Your task to perform on an android device: change the clock display to show seconds Image 0: 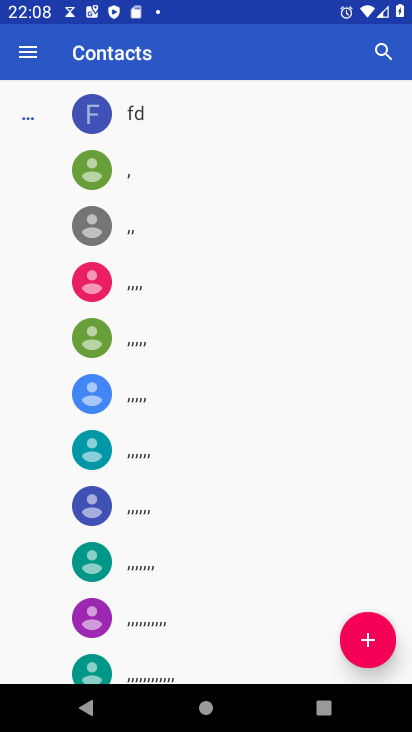
Step 0: press home button
Your task to perform on an android device: change the clock display to show seconds Image 1: 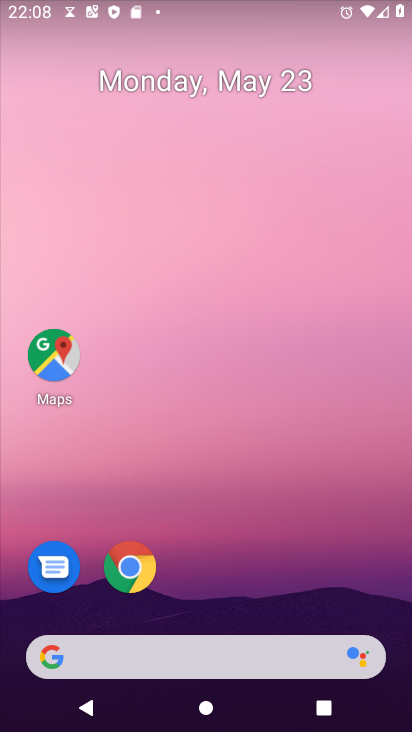
Step 1: drag from (257, 588) to (259, 97)
Your task to perform on an android device: change the clock display to show seconds Image 2: 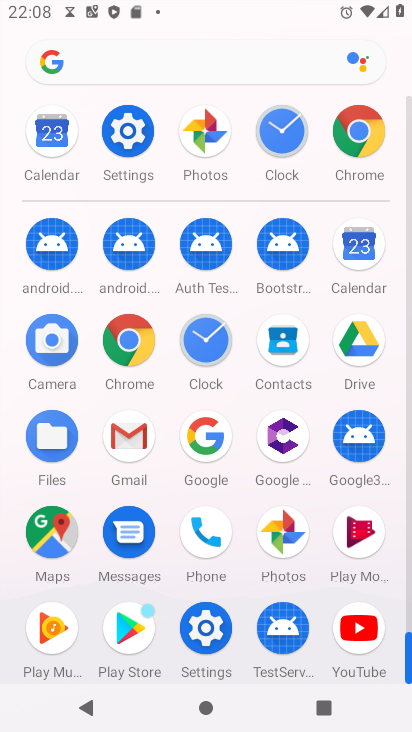
Step 2: click (199, 317)
Your task to perform on an android device: change the clock display to show seconds Image 3: 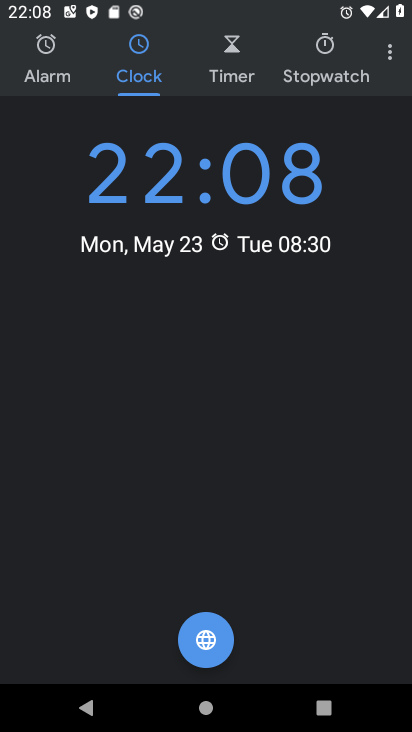
Step 3: click (391, 55)
Your task to perform on an android device: change the clock display to show seconds Image 4: 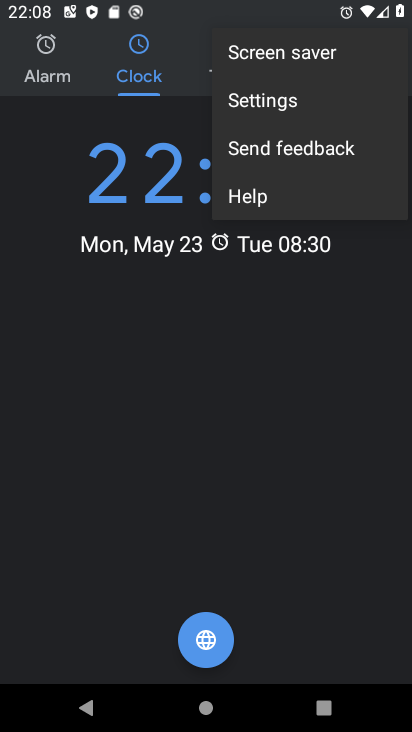
Step 4: click (279, 107)
Your task to perform on an android device: change the clock display to show seconds Image 5: 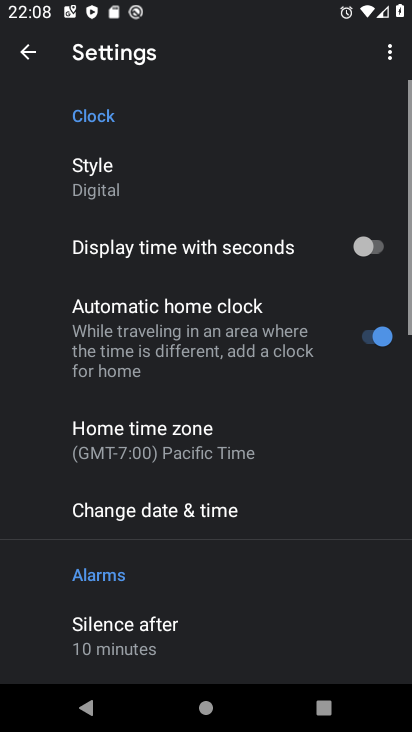
Step 5: click (120, 179)
Your task to perform on an android device: change the clock display to show seconds Image 6: 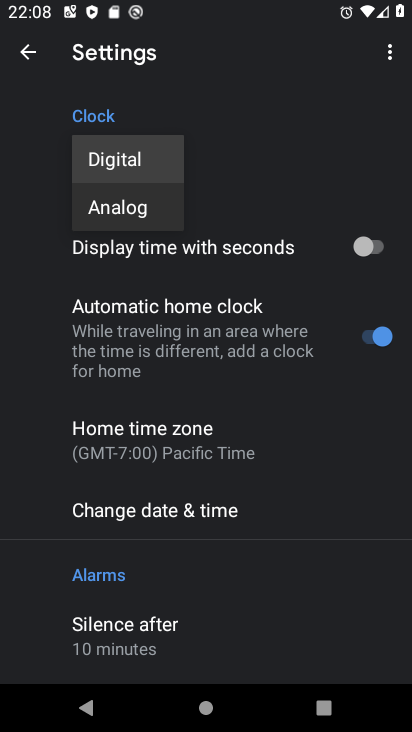
Step 6: click (289, 209)
Your task to perform on an android device: change the clock display to show seconds Image 7: 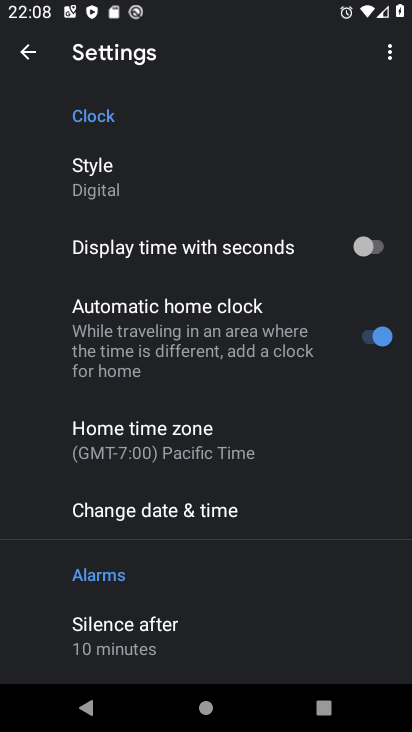
Step 7: click (363, 248)
Your task to perform on an android device: change the clock display to show seconds Image 8: 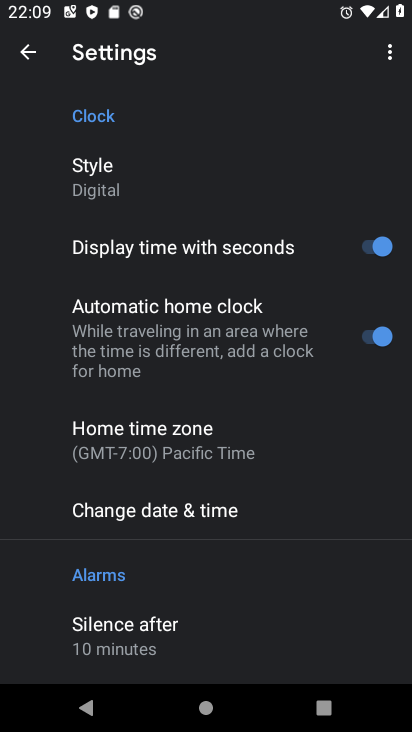
Step 8: task complete